Your task to perform on an android device: turn pop-ups on in chrome Image 0: 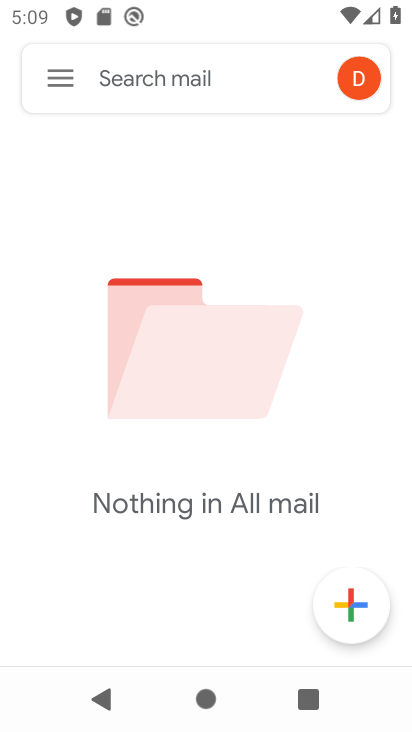
Step 0: press home button
Your task to perform on an android device: turn pop-ups on in chrome Image 1: 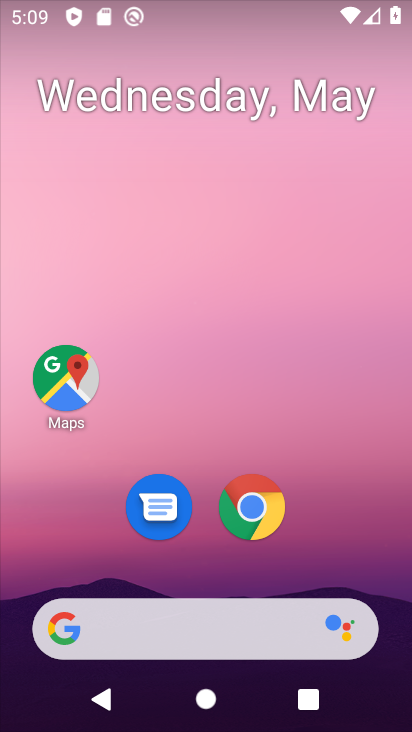
Step 1: click (253, 504)
Your task to perform on an android device: turn pop-ups on in chrome Image 2: 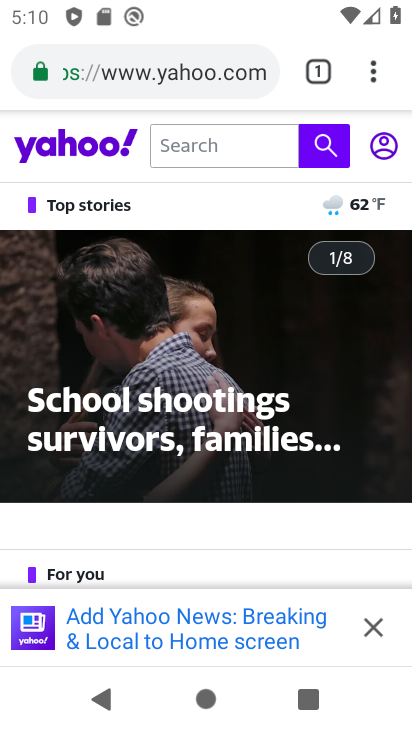
Step 2: click (373, 70)
Your task to perform on an android device: turn pop-ups on in chrome Image 3: 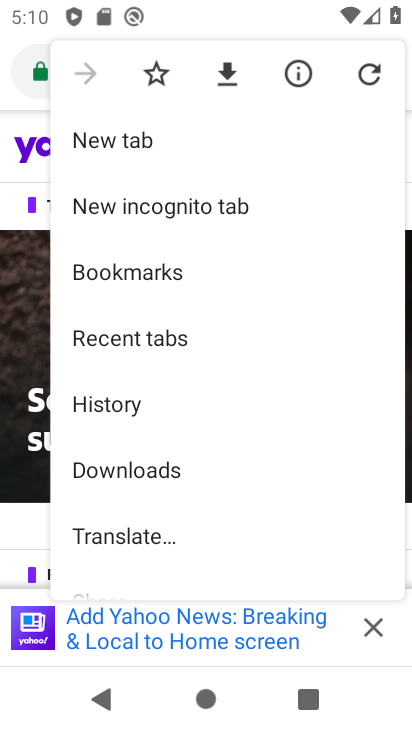
Step 3: drag from (185, 389) to (221, 328)
Your task to perform on an android device: turn pop-ups on in chrome Image 4: 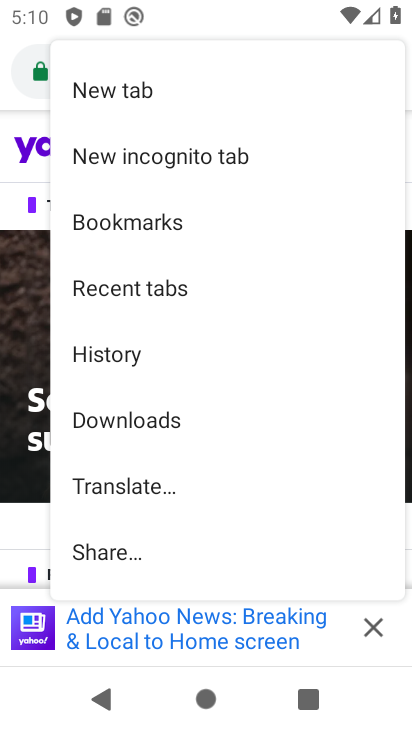
Step 4: drag from (151, 524) to (276, 182)
Your task to perform on an android device: turn pop-ups on in chrome Image 5: 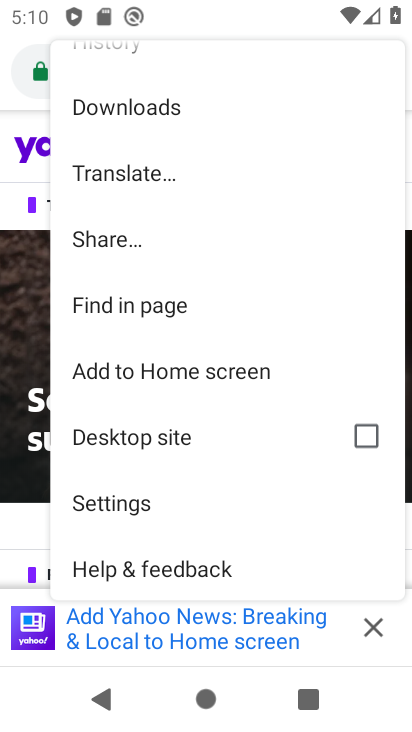
Step 5: click (113, 499)
Your task to perform on an android device: turn pop-ups on in chrome Image 6: 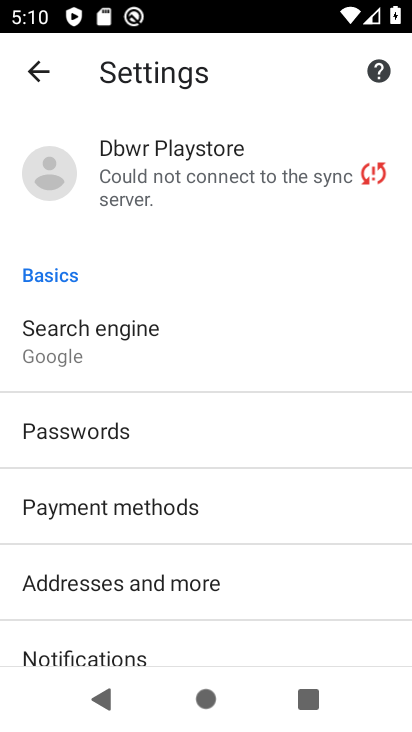
Step 6: drag from (179, 645) to (302, 221)
Your task to perform on an android device: turn pop-ups on in chrome Image 7: 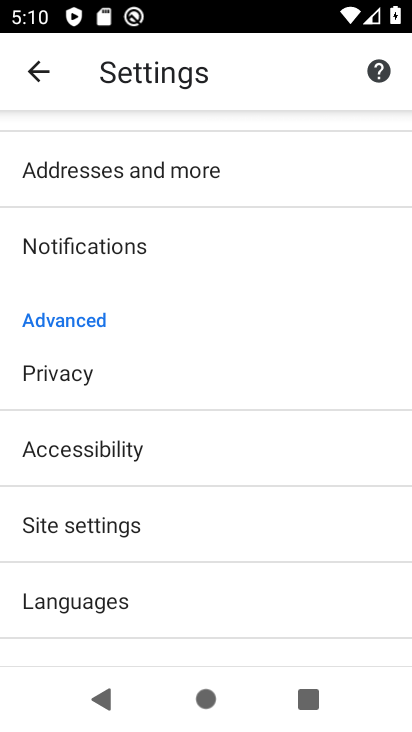
Step 7: click (90, 520)
Your task to perform on an android device: turn pop-ups on in chrome Image 8: 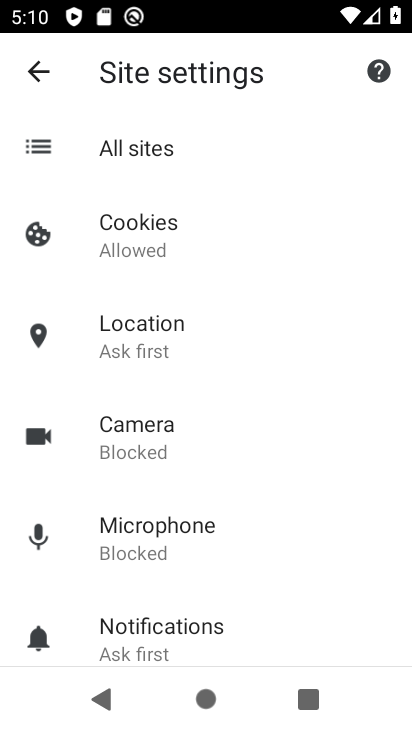
Step 8: drag from (137, 595) to (275, 306)
Your task to perform on an android device: turn pop-ups on in chrome Image 9: 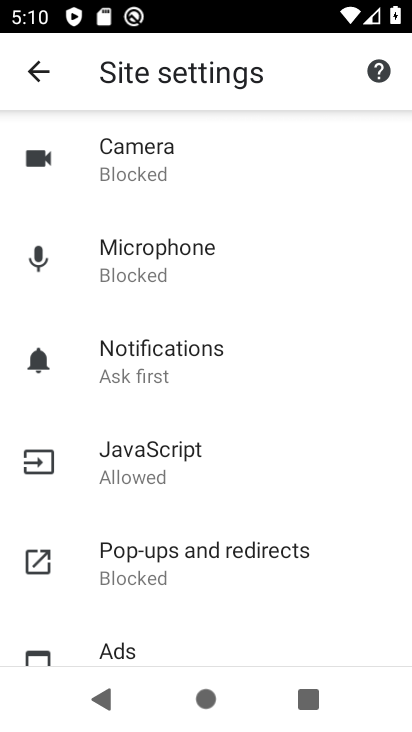
Step 9: click (184, 550)
Your task to perform on an android device: turn pop-ups on in chrome Image 10: 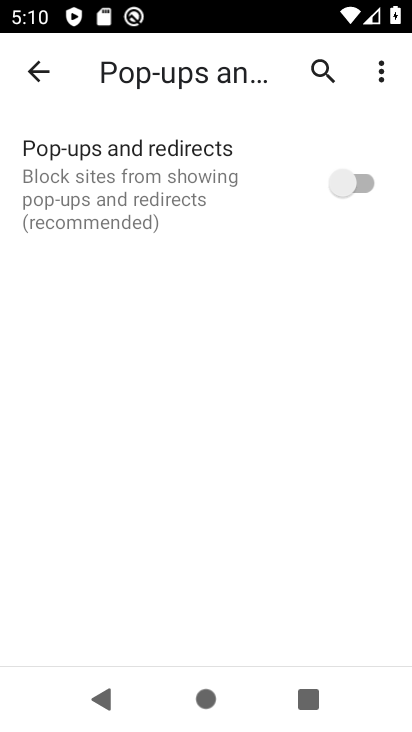
Step 10: click (353, 188)
Your task to perform on an android device: turn pop-ups on in chrome Image 11: 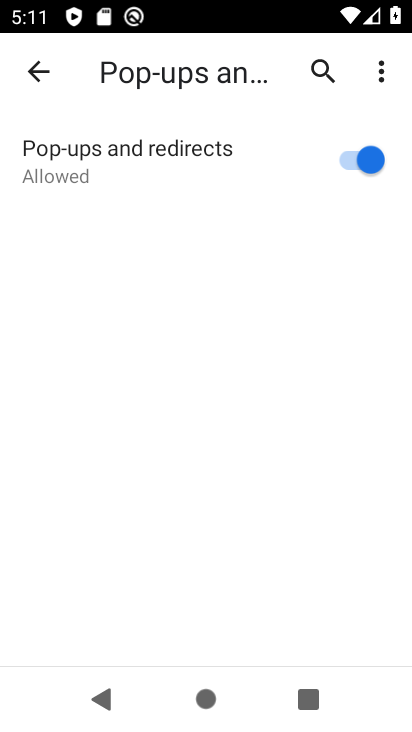
Step 11: task complete